Your task to perform on an android device: Go to Yahoo.com Image 0: 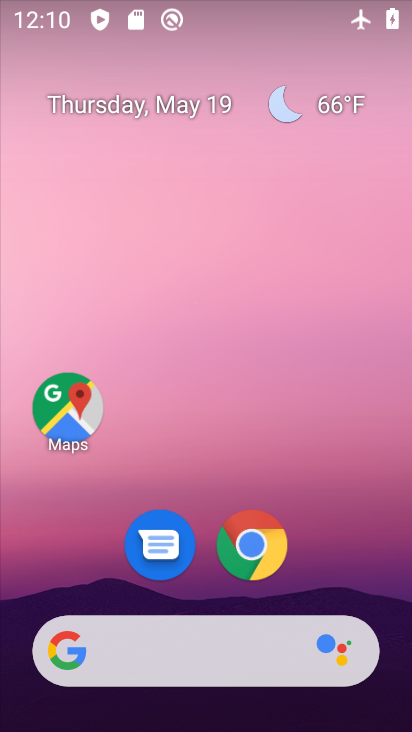
Step 0: click (204, 639)
Your task to perform on an android device: Go to Yahoo.com Image 1: 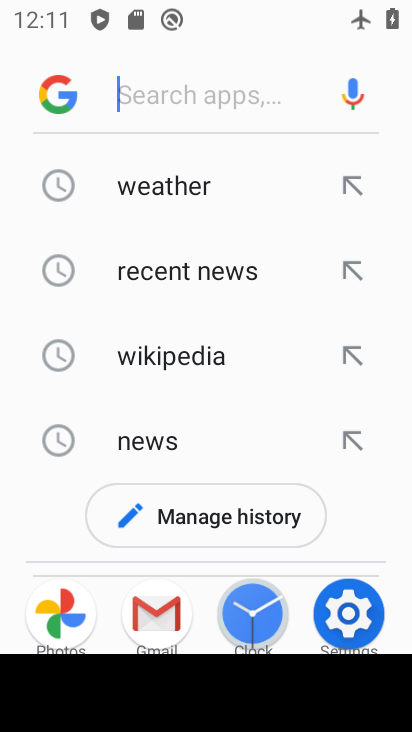
Step 1: type "yahoo.com"
Your task to perform on an android device: Go to Yahoo.com Image 2: 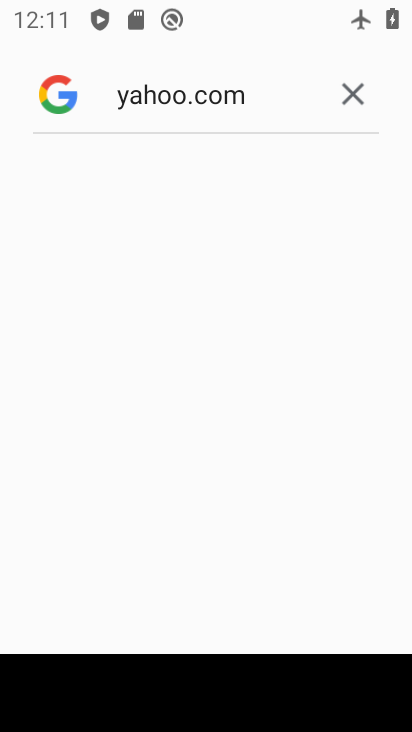
Step 2: task complete